Your task to perform on an android device: Open Youtube and go to "Your channel" Image 0: 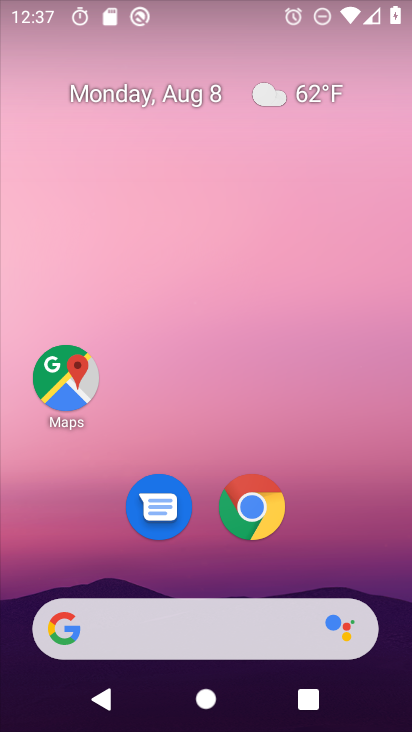
Step 0: drag from (344, 103) to (343, 16)
Your task to perform on an android device: Open Youtube and go to "Your channel" Image 1: 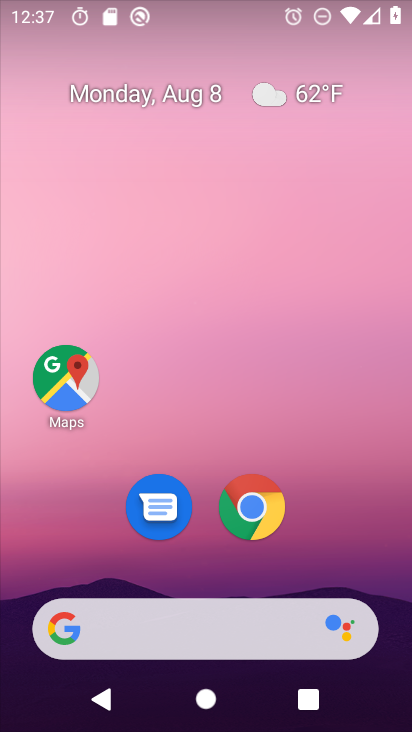
Step 1: drag from (346, 542) to (273, 6)
Your task to perform on an android device: Open Youtube and go to "Your channel" Image 2: 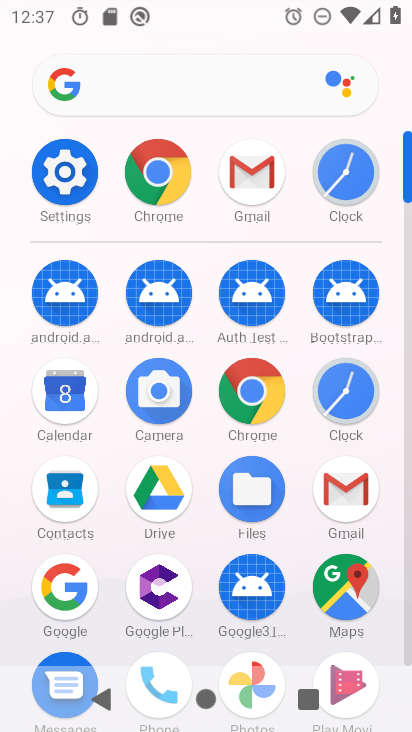
Step 2: drag from (295, 549) to (301, 153)
Your task to perform on an android device: Open Youtube and go to "Your channel" Image 3: 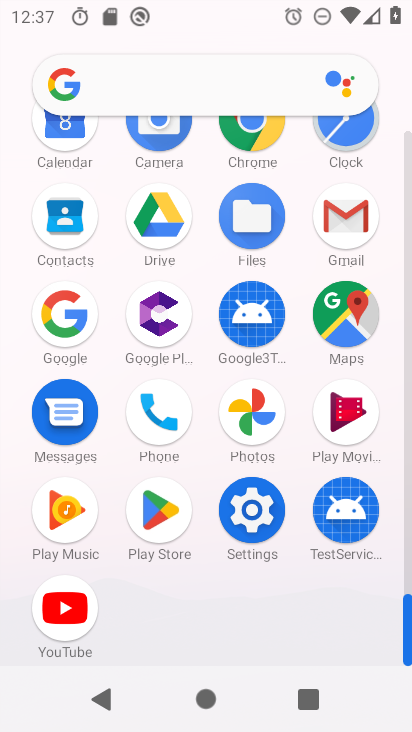
Step 3: click (52, 616)
Your task to perform on an android device: Open Youtube and go to "Your channel" Image 4: 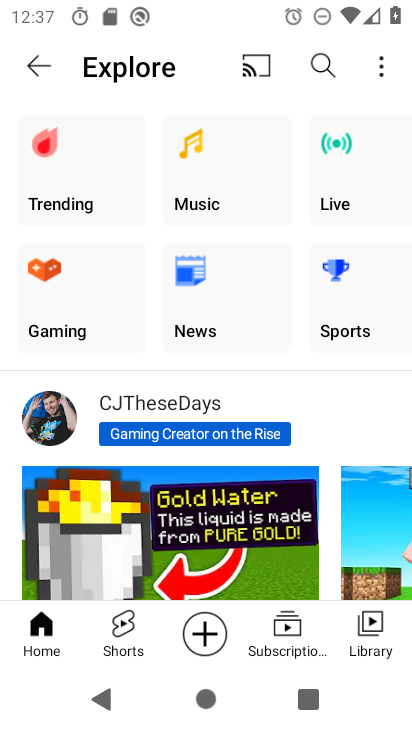
Step 4: press back button
Your task to perform on an android device: Open Youtube and go to "Your channel" Image 5: 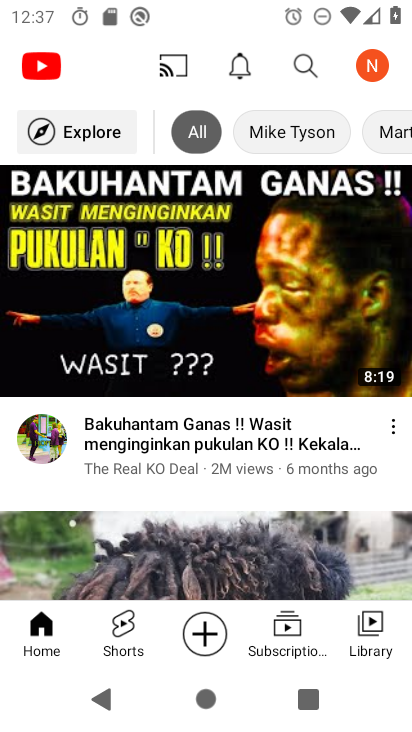
Step 5: click (379, 62)
Your task to perform on an android device: Open Youtube and go to "Your channel" Image 6: 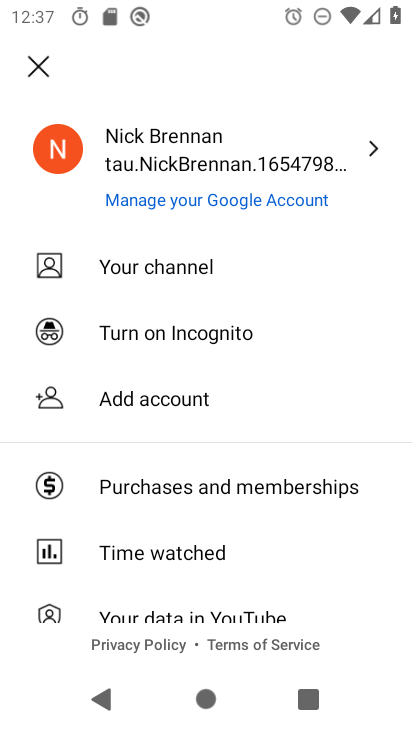
Step 6: click (192, 264)
Your task to perform on an android device: Open Youtube and go to "Your channel" Image 7: 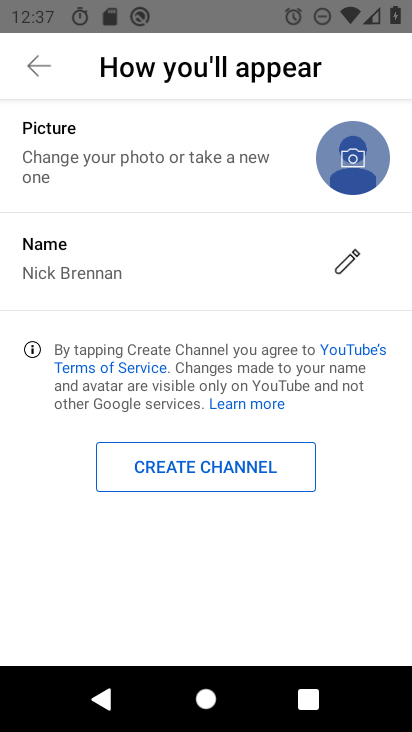
Step 7: task complete